Your task to perform on an android device: install app "Etsy: Buy & Sell Unique Items" Image 0: 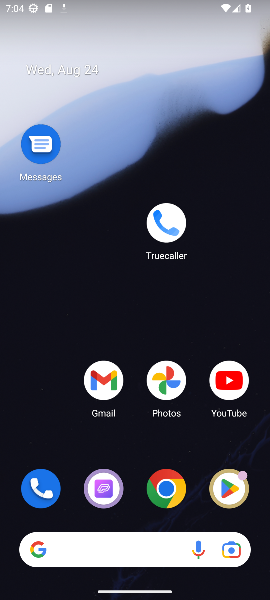
Step 0: click (235, 499)
Your task to perform on an android device: install app "Etsy: Buy & Sell Unique Items" Image 1: 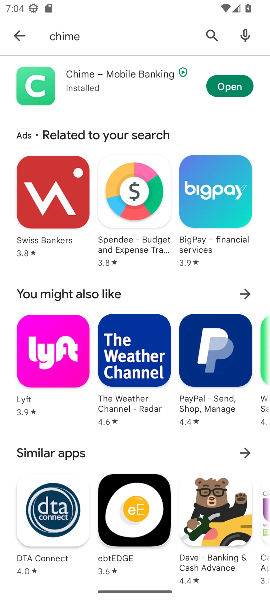
Step 1: click (214, 40)
Your task to perform on an android device: install app "Etsy: Buy & Sell Unique Items" Image 2: 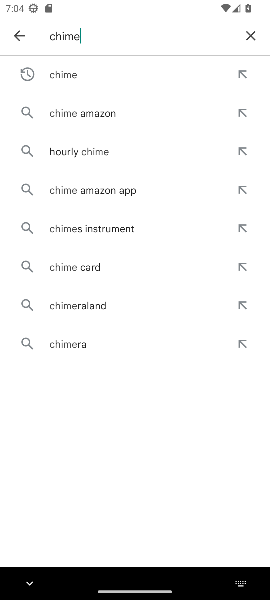
Step 2: click (243, 37)
Your task to perform on an android device: install app "Etsy: Buy & Sell Unique Items" Image 3: 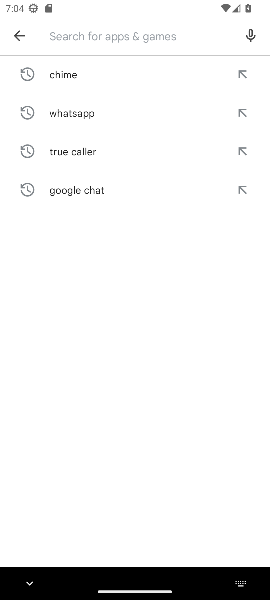
Step 3: type "etsy"
Your task to perform on an android device: install app "Etsy: Buy & Sell Unique Items" Image 4: 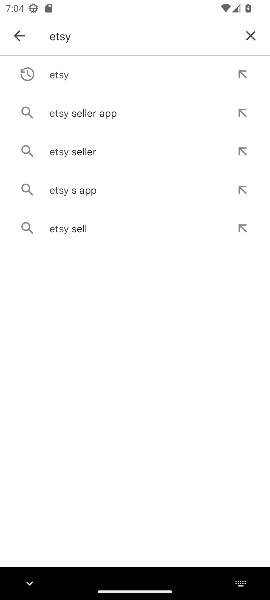
Step 4: click (96, 68)
Your task to perform on an android device: install app "Etsy: Buy & Sell Unique Items" Image 5: 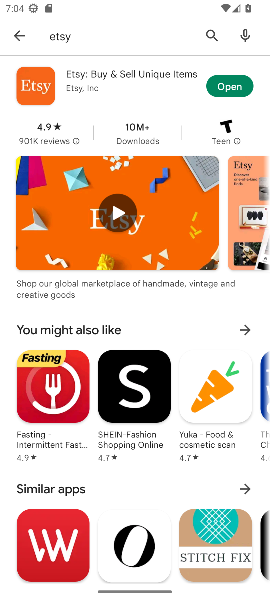
Step 5: click (216, 90)
Your task to perform on an android device: install app "Etsy: Buy & Sell Unique Items" Image 6: 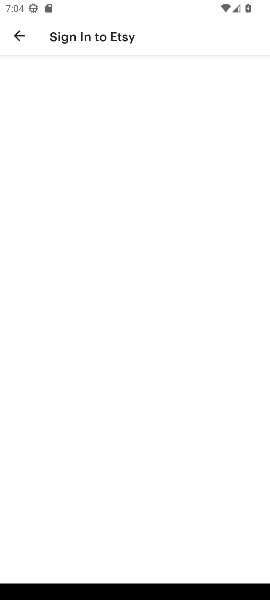
Step 6: task complete